Your task to perform on an android device: open a bookmark in the chrome app Image 0: 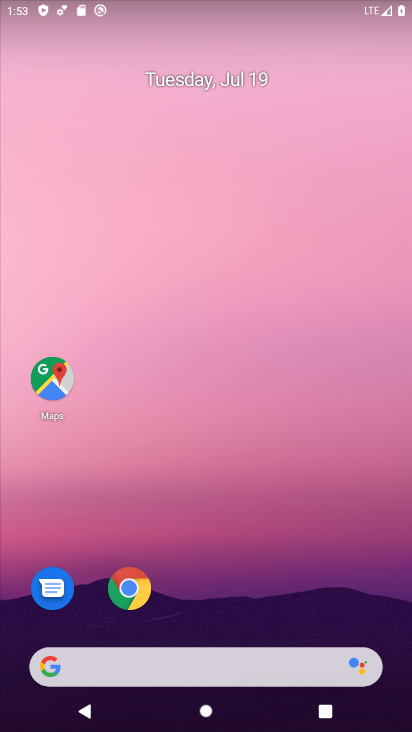
Step 0: click (125, 586)
Your task to perform on an android device: open a bookmark in the chrome app Image 1: 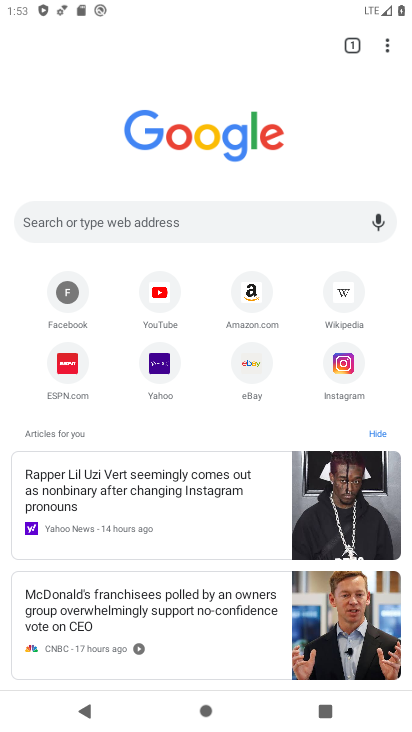
Step 1: click (389, 45)
Your task to perform on an android device: open a bookmark in the chrome app Image 2: 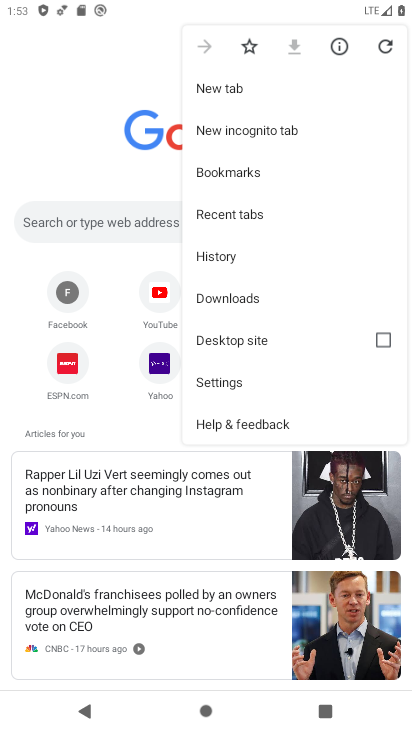
Step 2: click (234, 175)
Your task to perform on an android device: open a bookmark in the chrome app Image 3: 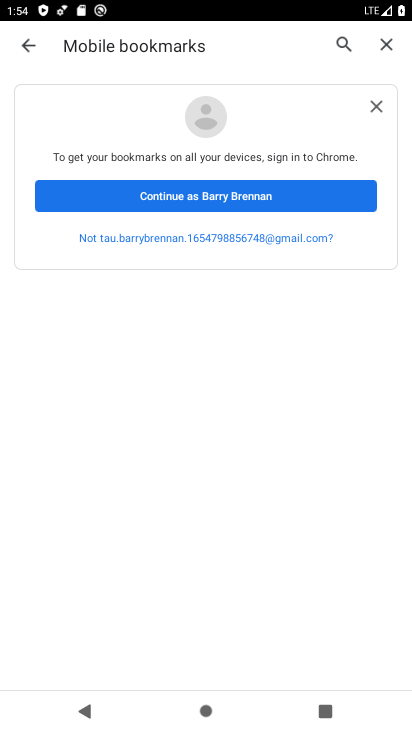
Step 3: task complete